Your task to perform on an android device: toggle location history Image 0: 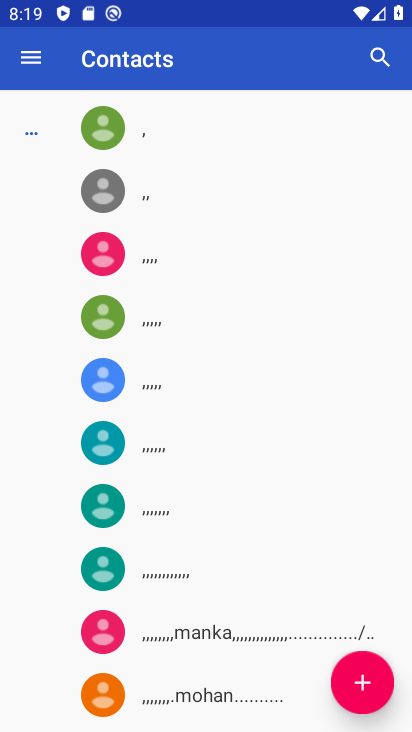
Step 0: press home button
Your task to perform on an android device: toggle location history Image 1: 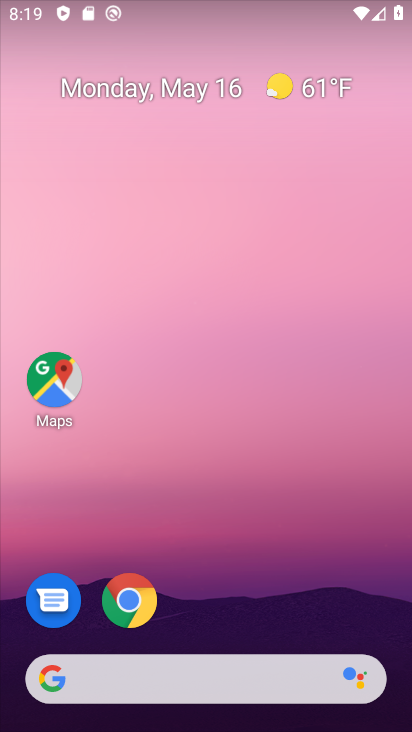
Step 1: drag from (208, 632) to (250, 30)
Your task to perform on an android device: toggle location history Image 2: 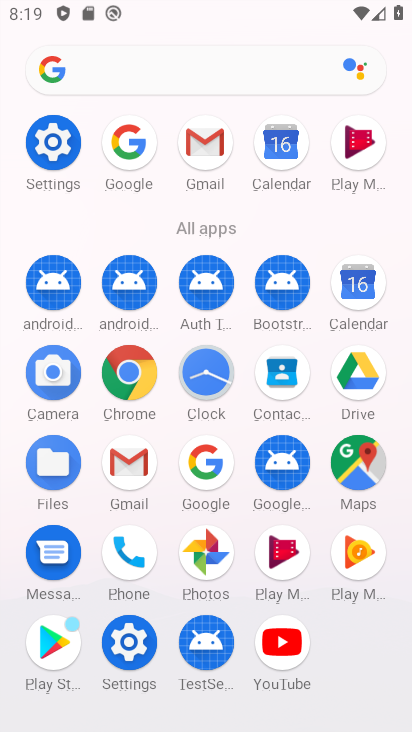
Step 2: click (128, 652)
Your task to perform on an android device: toggle location history Image 3: 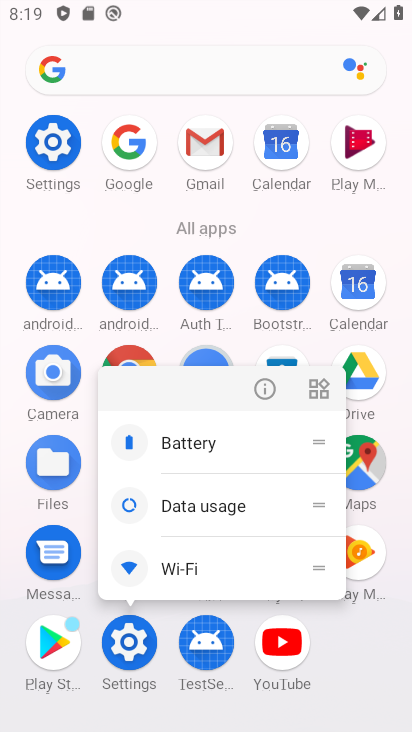
Step 3: click (128, 652)
Your task to perform on an android device: toggle location history Image 4: 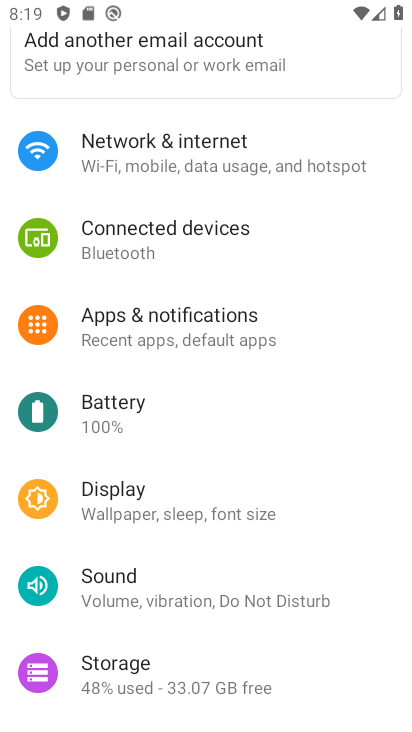
Step 4: drag from (134, 681) to (122, 613)
Your task to perform on an android device: toggle location history Image 5: 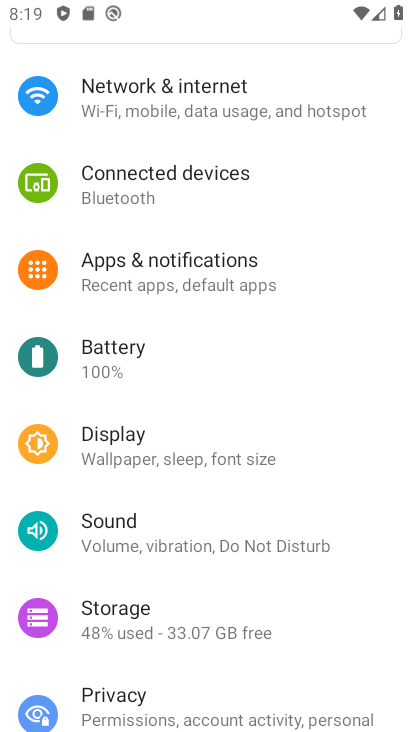
Step 5: drag from (122, 673) to (121, 578)
Your task to perform on an android device: toggle location history Image 6: 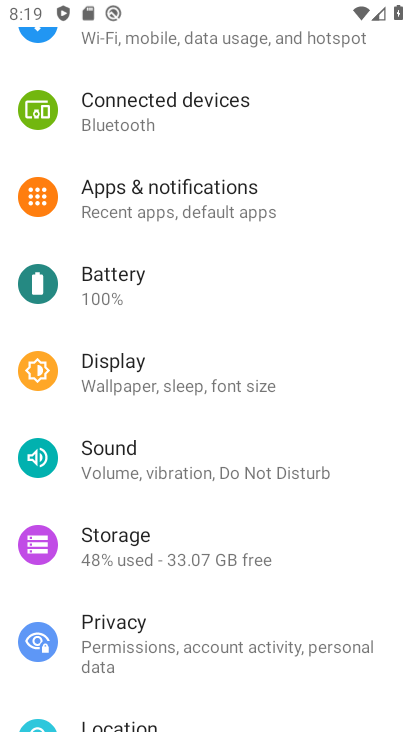
Step 6: drag from (117, 684) to (123, 573)
Your task to perform on an android device: toggle location history Image 7: 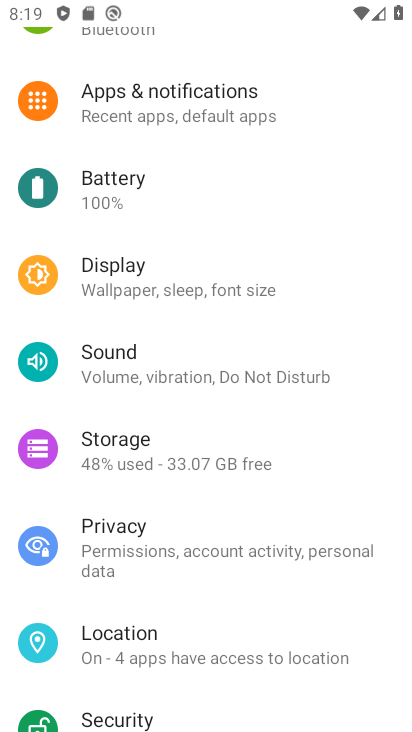
Step 7: click (111, 632)
Your task to perform on an android device: toggle location history Image 8: 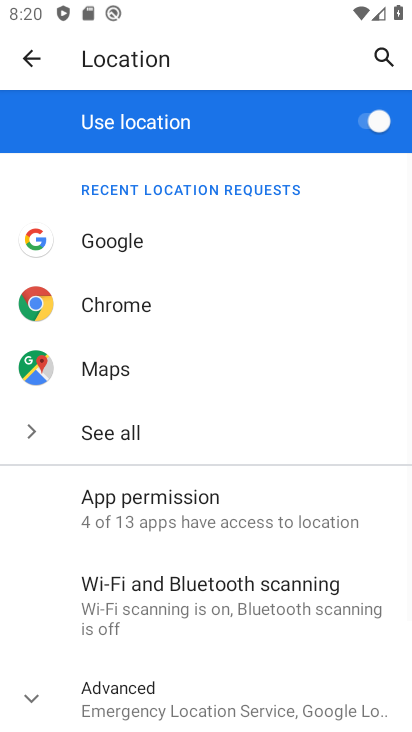
Step 8: click (126, 694)
Your task to perform on an android device: toggle location history Image 9: 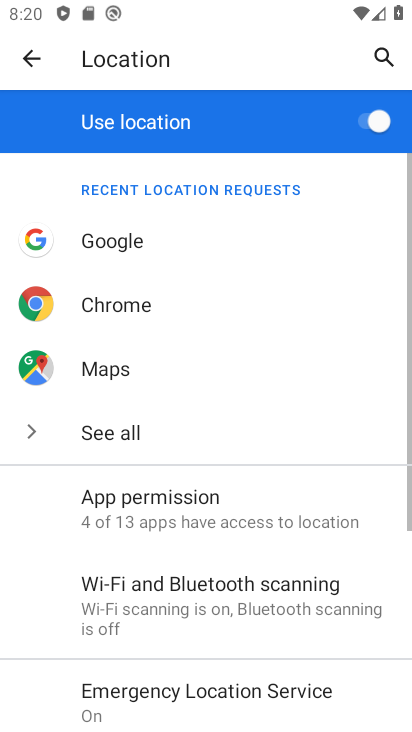
Step 9: drag from (126, 694) to (138, 549)
Your task to perform on an android device: toggle location history Image 10: 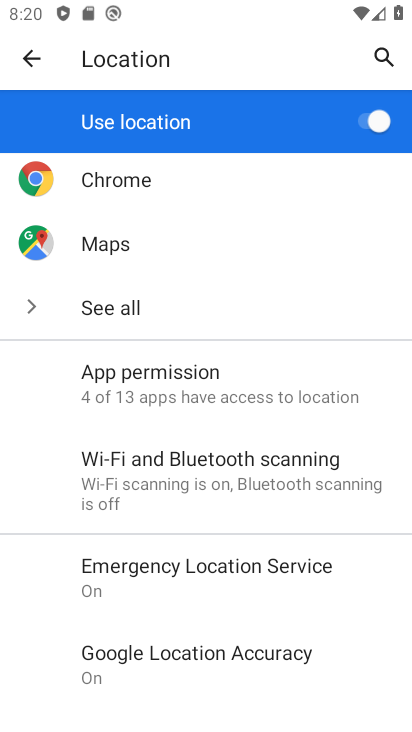
Step 10: drag from (125, 671) to (140, 576)
Your task to perform on an android device: toggle location history Image 11: 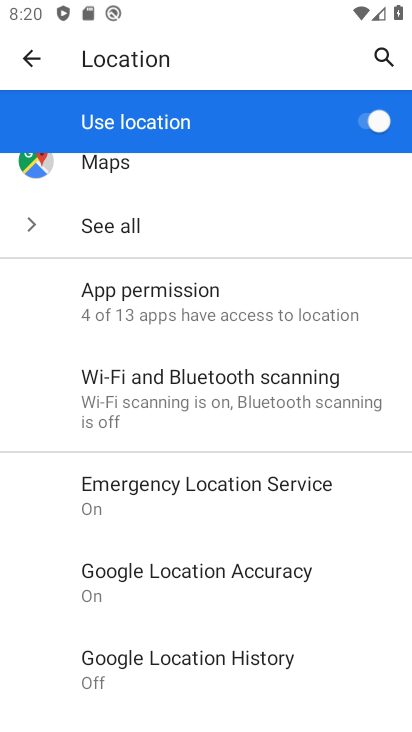
Step 11: click (139, 671)
Your task to perform on an android device: toggle location history Image 12: 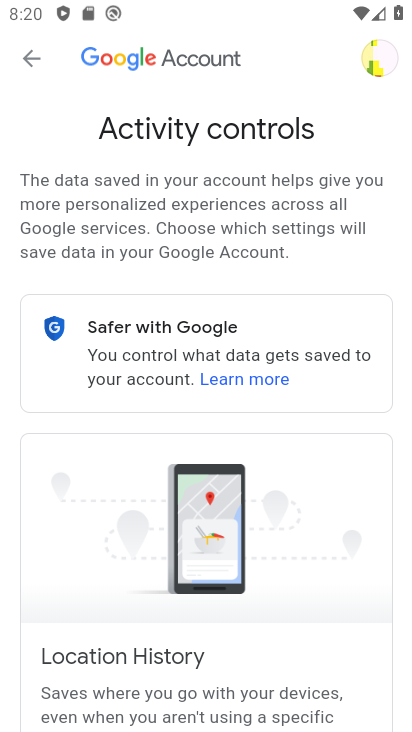
Step 12: drag from (266, 682) to (239, 555)
Your task to perform on an android device: toggle location history Image 13: 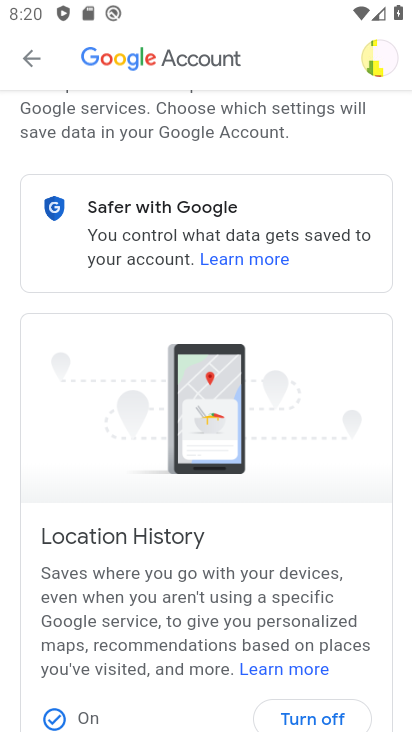
Step 13: click (287, 714)
Your task to perform on an android device: toggle location history Image 14: 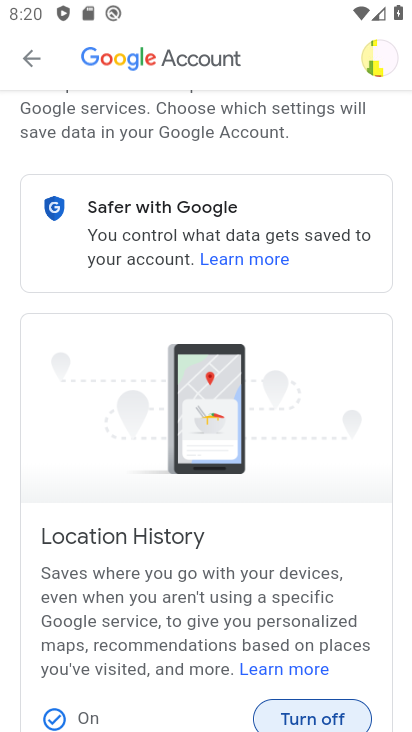
Step 14: click (287, 713)
Your task to perform on an android device: toggle location history Image 15: 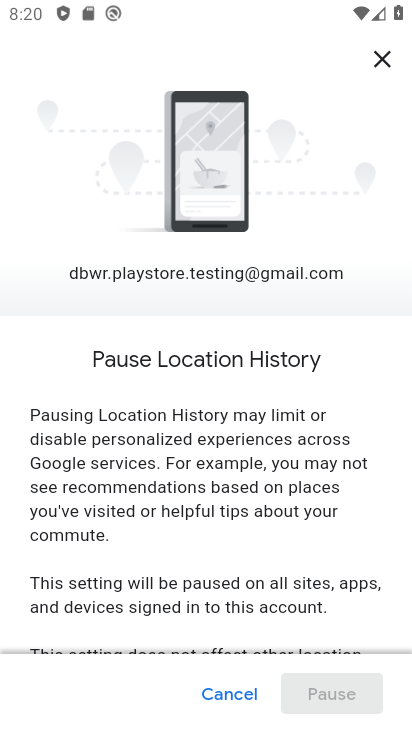
Step 15: drag from (246, 609) to (244, 258)
Your task to perform on an android device: toggle location history Image 16: 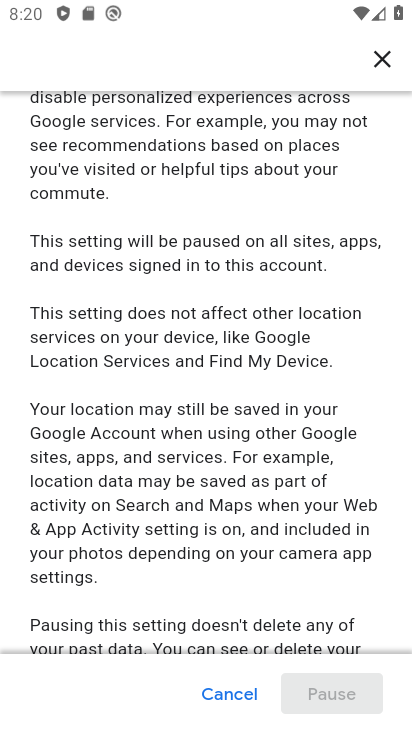
Step 16: drag from (237, 580) to (288, 246)
Your task to perform on an android device: toggle location history Image 17: 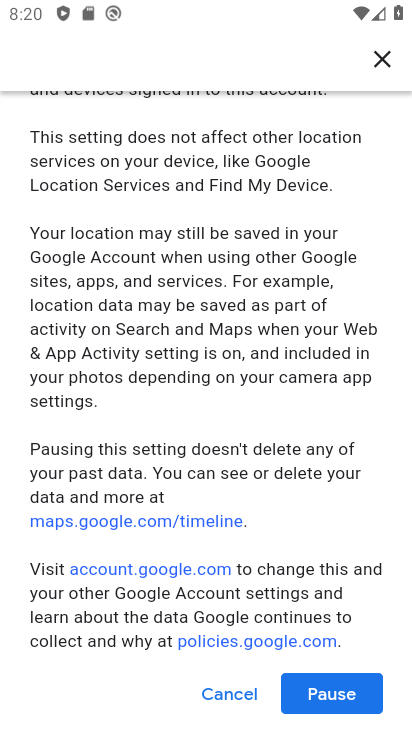
Step 17: click (318, 684)
Your task to perform on an android device: toggle location history Image 18: 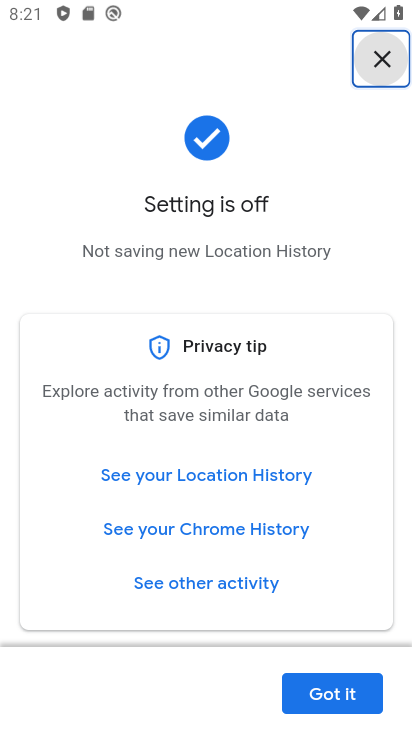
Step 18: click (330, 700)
Your task to perform on an android device: toggle location history Image 19: 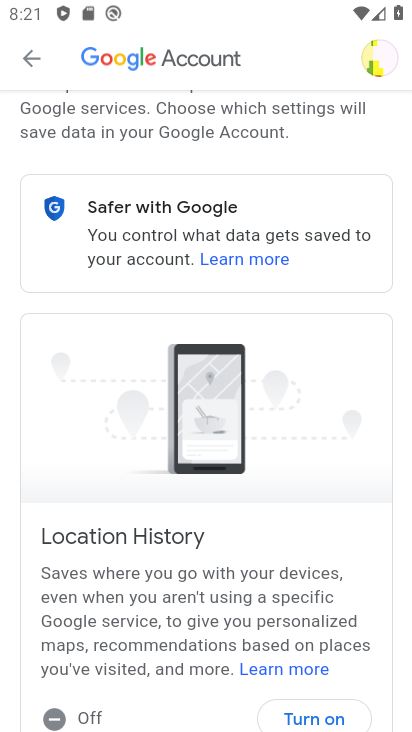
Step 19: task complete